Your task to perform on an android device: Go to Google Image 0: 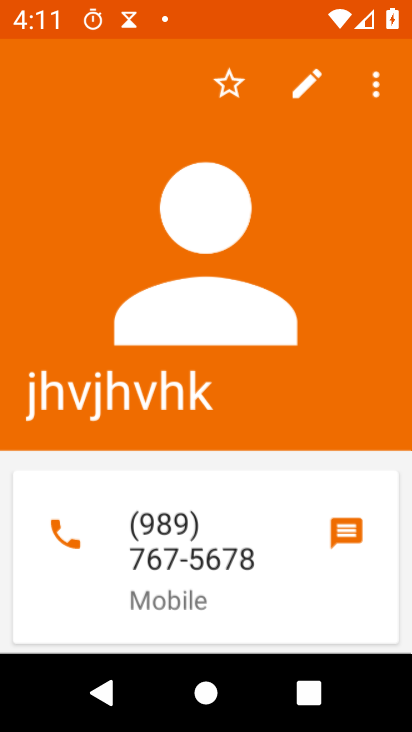
Step 0: drag from (265, 579) to (311, 0)
Your task to perform on an android device: Go to Google Image 1: 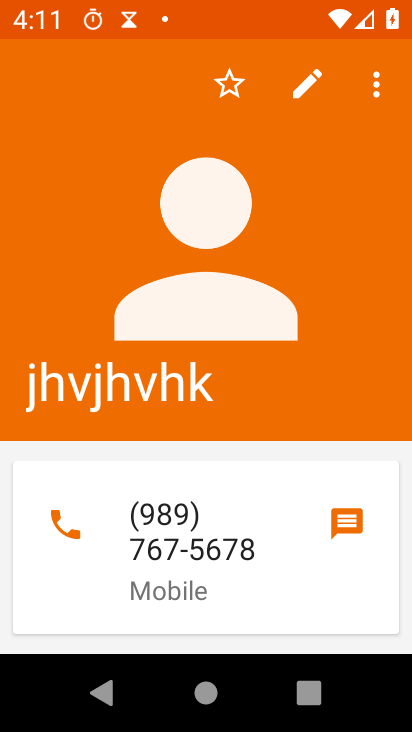
Step 1: press home button
Your task to perform on an android device: Go to Google Image 2: 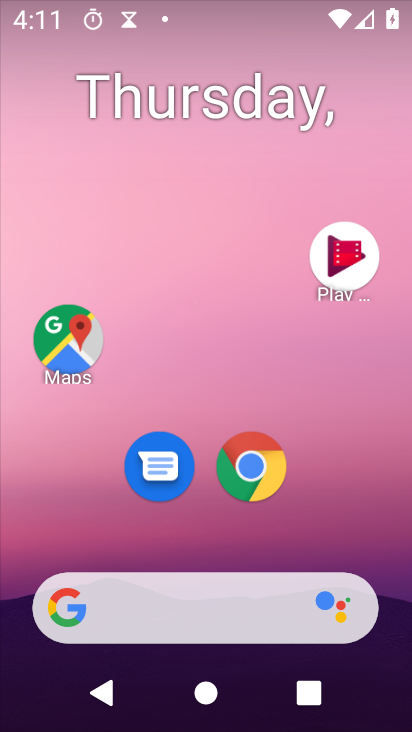
Step 2: drag from (262, 554) to (300, 7)
Your task to perform on an android device: Go to Google Image 3: 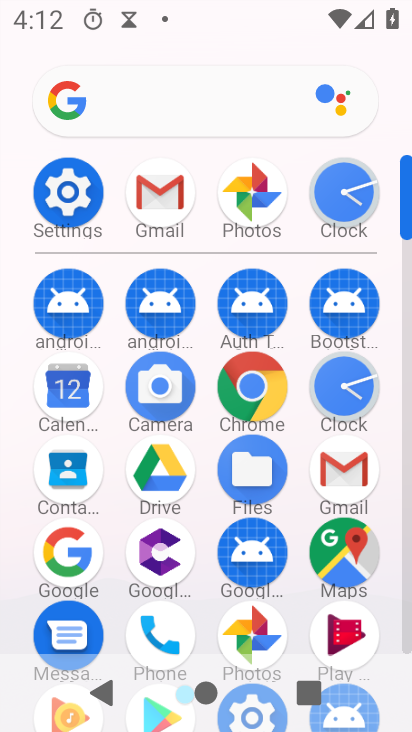
Step 3: click (258, 374)
Your task to perform on an android device: Go to Google Image 4: 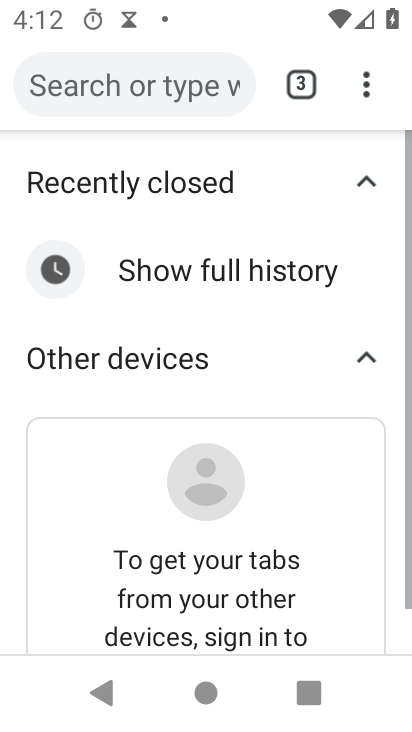
Step 4: task complete